Your task to perform on an android device: See recent photos Image 0: 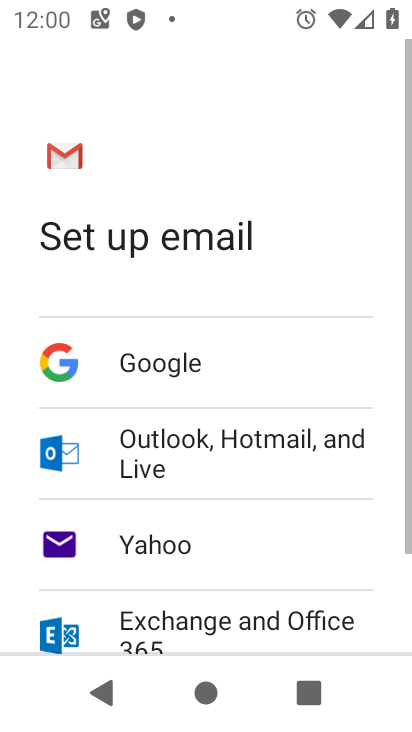
Step 0: press home button
Your task to perform on an android device: See recent photos Image 1: 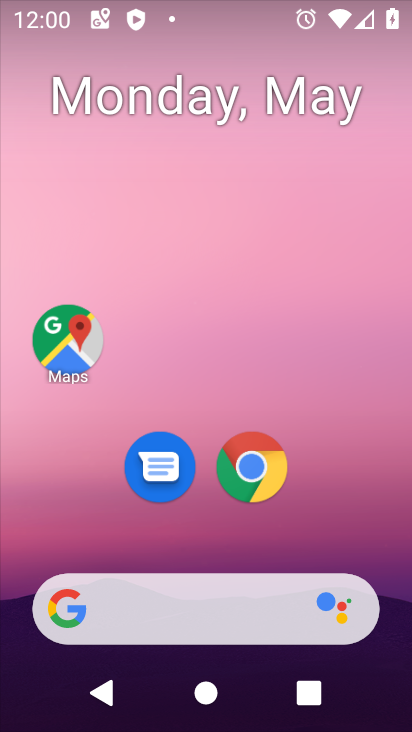
Step 1: drag from (375, 578) to (346, 726)
Your task to perform on an android device: See recent photos Image 2: 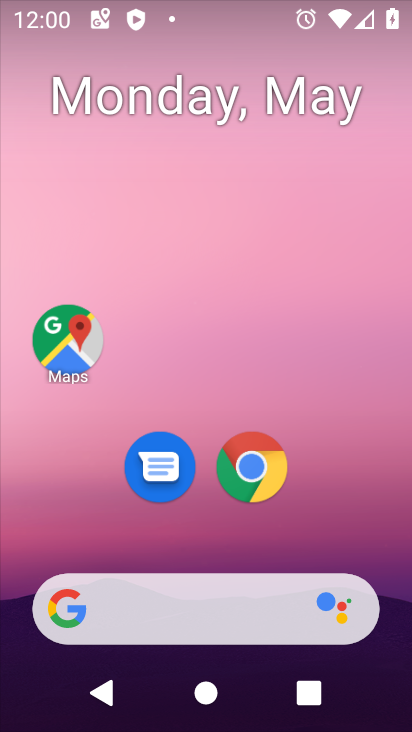
Step 2: drag from (378, 578) to (396, 632)
Your task to perform on an android device: See recent photos Image 3: 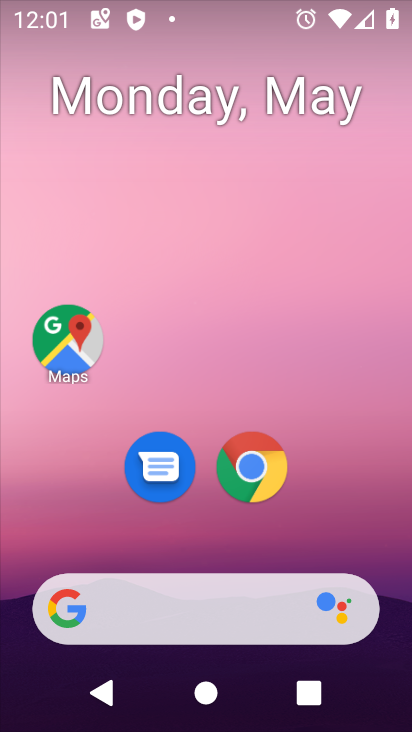
Step 3: drag from (393, 593) to (399, 635)
Your task to perform on an android device: See recent photos Image 4: 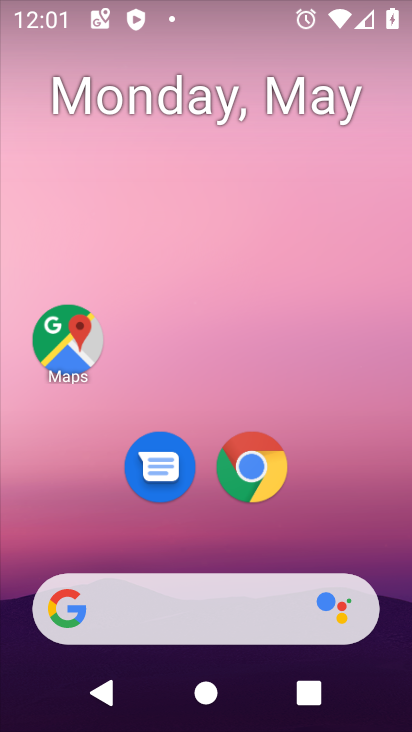
Step 4: drag from (384, 605) to (322, 0)
Your task to perform on an android device: See recent photos Image 5: 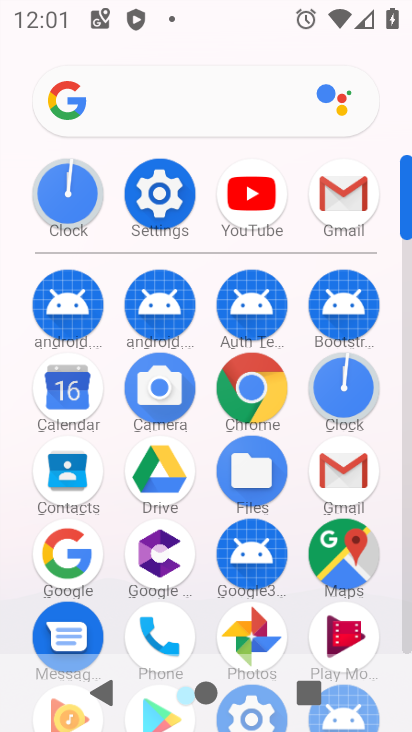
Step 5: click (252, 612)
Your task to perform on an android device: See recent photos Image 6: 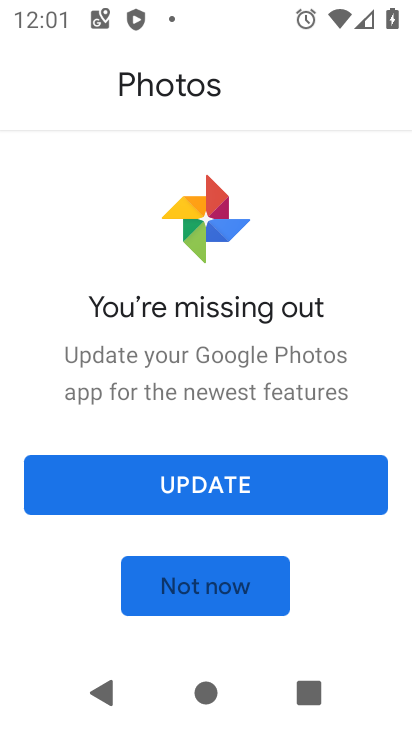
Step 6: click (205, 577)
Your task to perform on an android device: See recent photos Image 7: 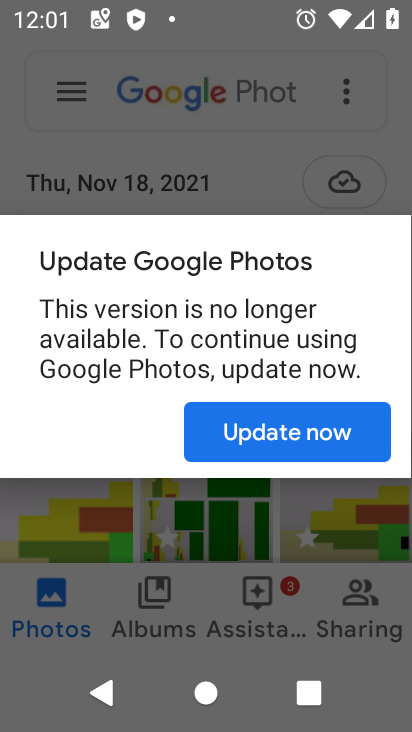
Step 7: click (300, 428)
Your task to perform on an android device: See recent photos Image 8: 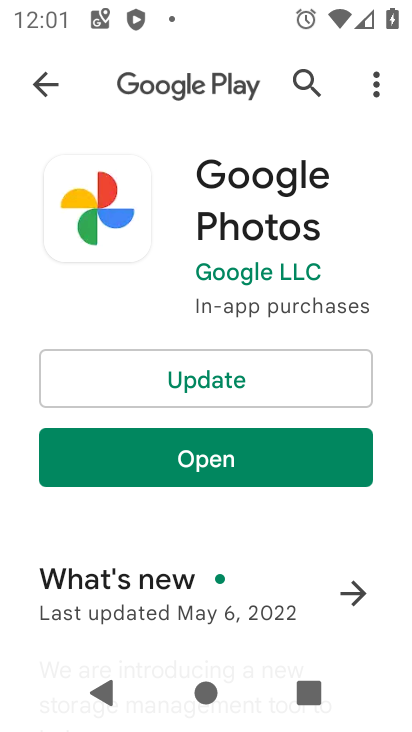
Step 8: click (235, 454)
Your task to perform on an android device: See recent photos Image 9: 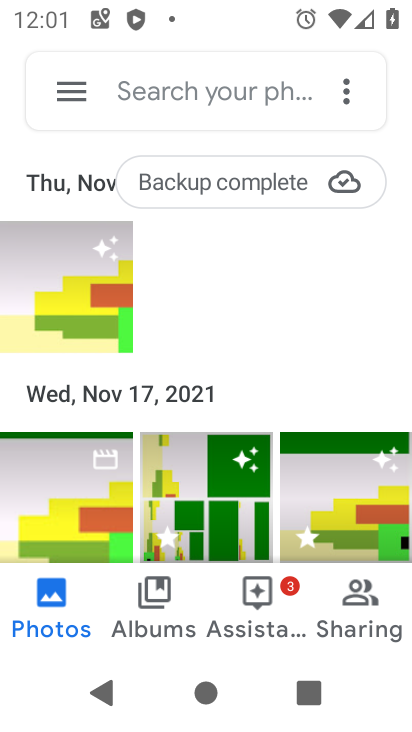
Step 9: task complete